Your task to perform on an android device: Open notification settings Image 0: 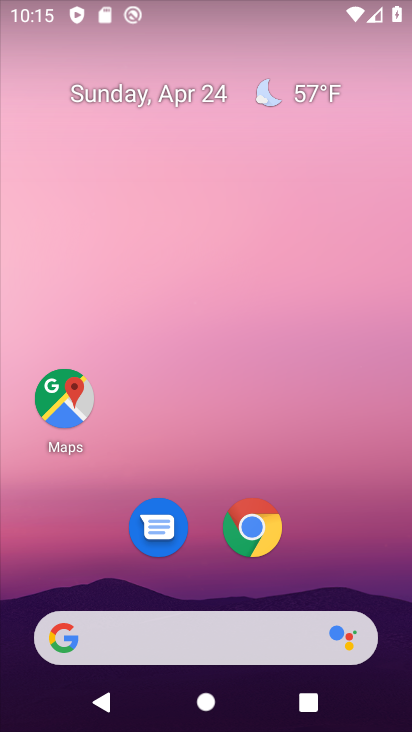
Step 0: drag from (227, 552) to (159, 34)
Your task to perform on an android device: Open notification settings Image 1: 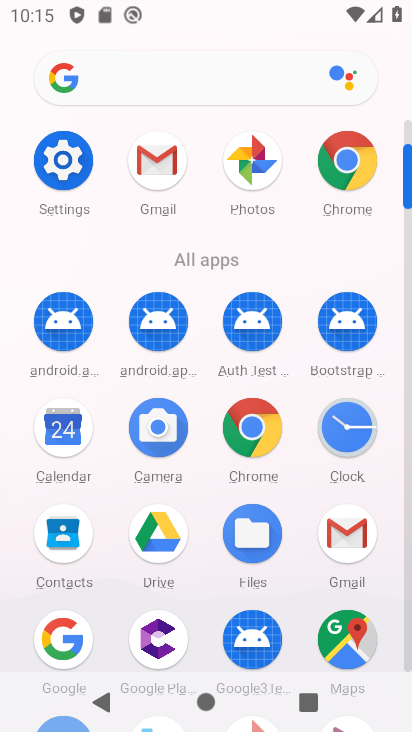
Step 1: click (59, 161)
Your task to perform on an android device: Open notification settings Image 2: 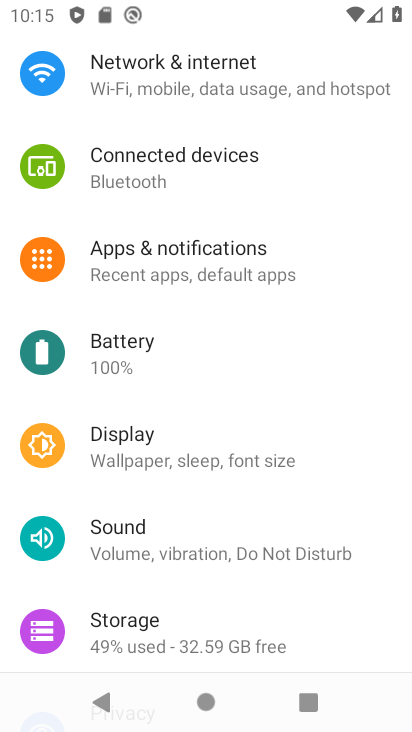
Step 2: click (162, 258)
Your task to perform on an android device: Open notification settings Image 3: 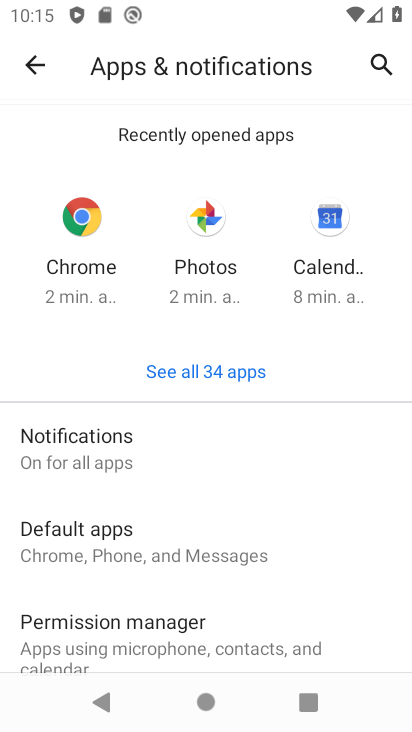
Step 3: click (80, 455)
Your task to perform on an android device: Open notification settings Image 4: 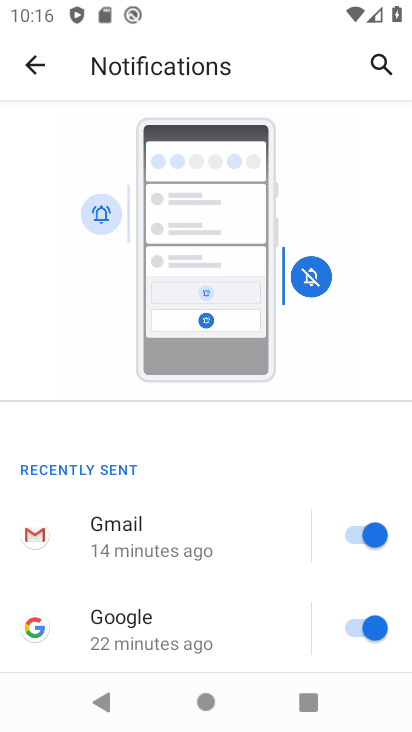
Step 4: drag from (178, 557) to (108, 314)
Your task to perform on an android device: Open notification settings Image 5: 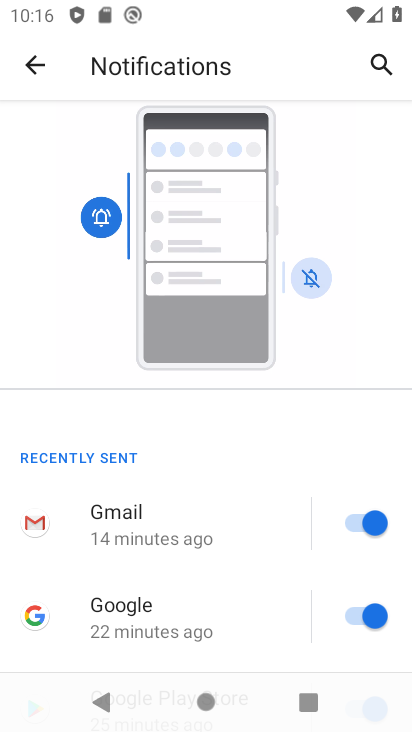
Step 5: drag from (203, 584) to (51, 172)
Your task to perform on an android device: Open notification settings Image 6: 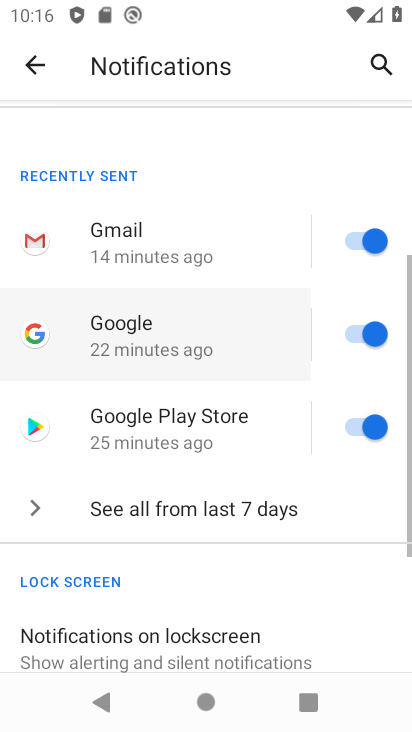
Step 6: drag from (219, 510) to (108, 162)
Your task to perform on an android device: Open notification settings Image 7: 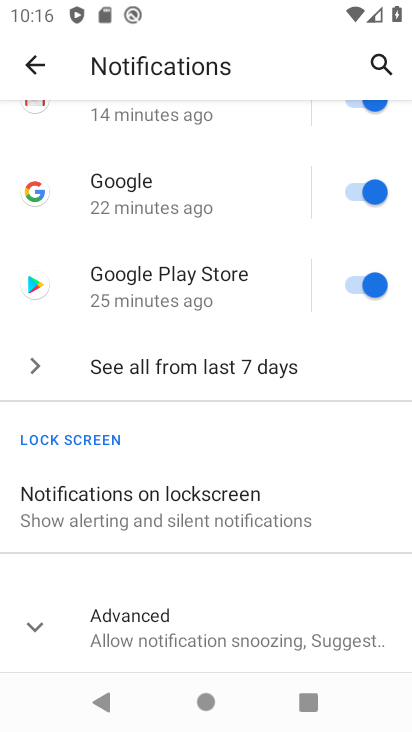
Step 7: drag from (156, 634) to (92, 247)
Your task to perform on an android device: Open notification settings Image 8: 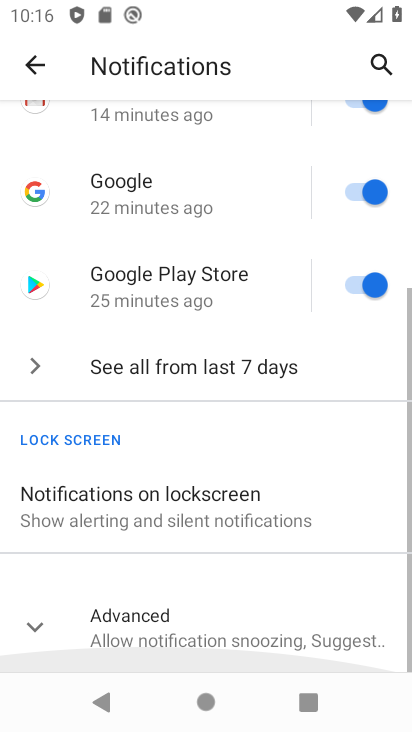
Step 8: click (153, 635)
Your task to perform on an android device: Open notification settings Image 9: 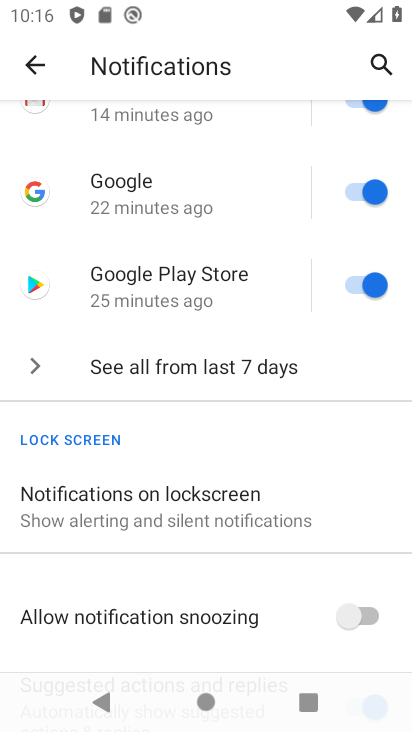
Step 9: task complete